Your task to perform on an android device: Search for sushi restaurants on Maps Image 0: 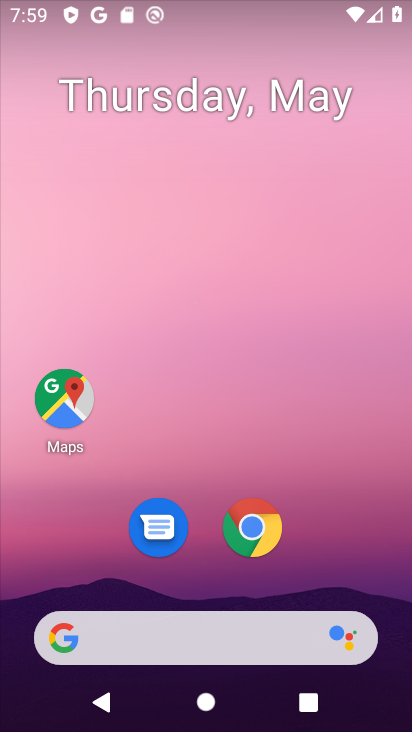
Step 0: click (61, 403)
Your task to perform on an android device: Search for sushi restaurants on Maps Image 1: 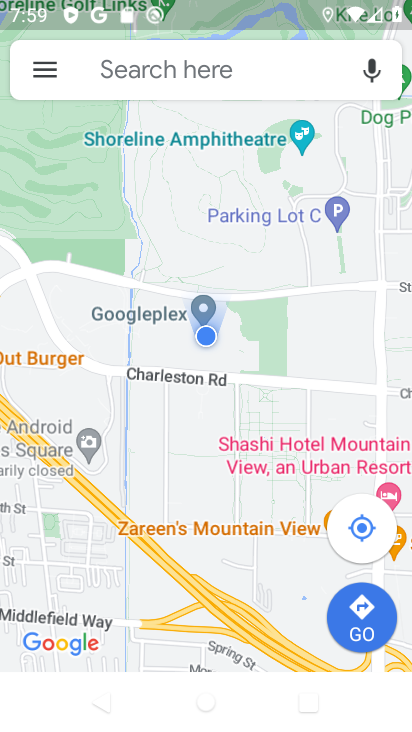
Step 1: click (131, 71)
Your task to perform on an android device: Search for sushi restaurants on Maps Image 2: 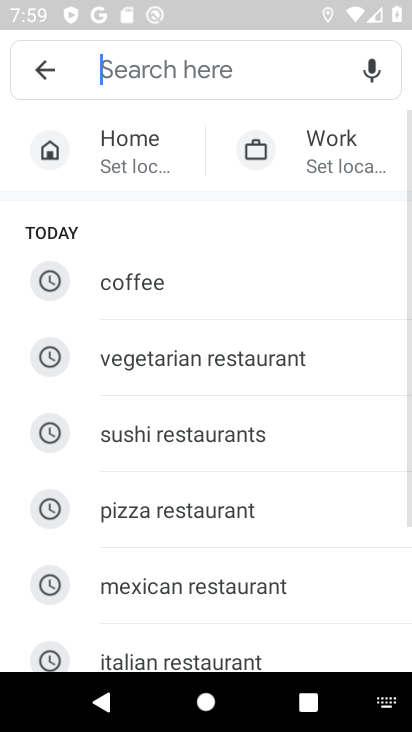
Step 2: click (112, 408)
Your task to perform on an android device: Search for sushi restaurants on Maps Image 3: 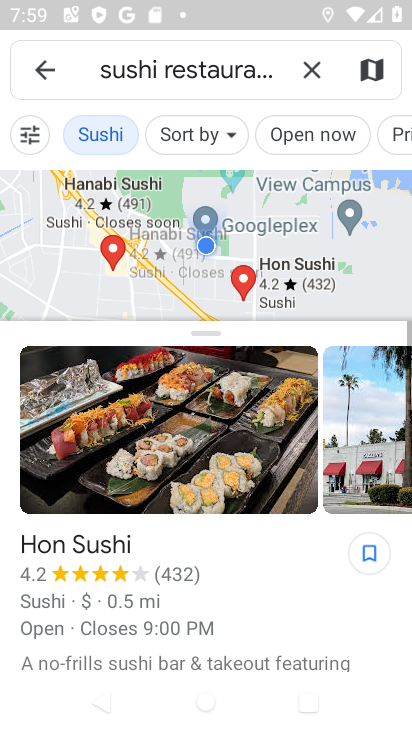
Step 3: task complete